Your task to perform on an android device: remove spam from my inbox in the gmail app Image 0: 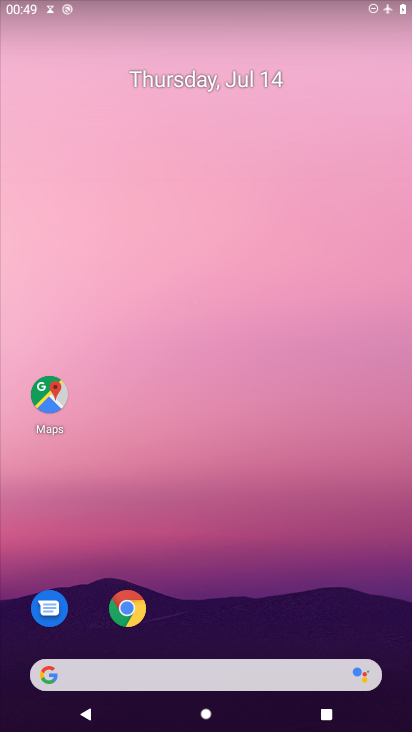
Step 0: press home button
Your task to perform on an android device: remove spam from my inbox in the gmail app Image 1: 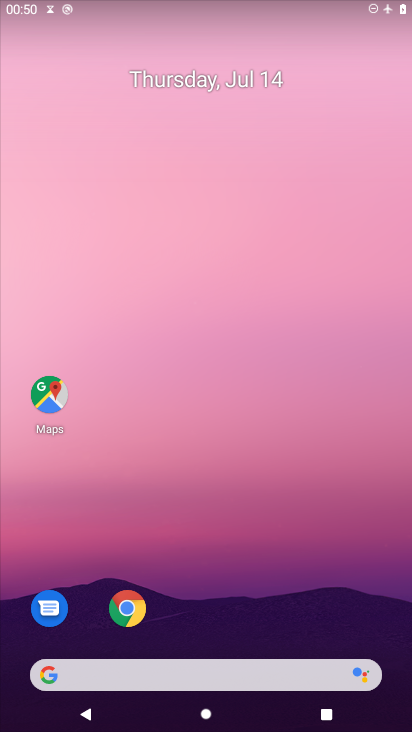
Step 1: press home button
Your task to perform on an android device: remove spam from my inbox in the gmail app Image 2: 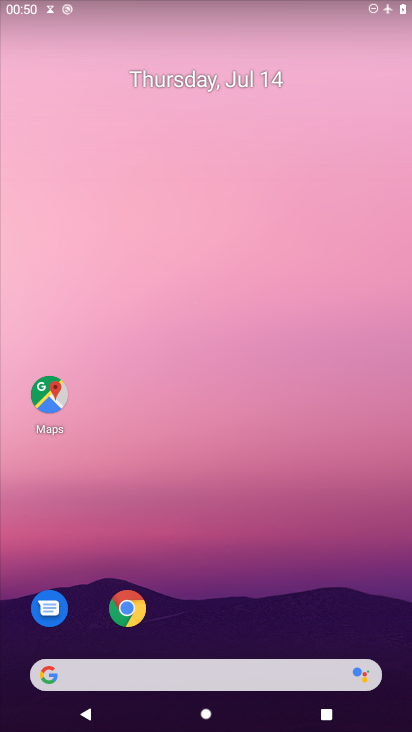
Step 2: drag from (271, 632) to (273, 14)
Your task to perform on an android device: remove spam from my inbox in the gmail app Image 3: 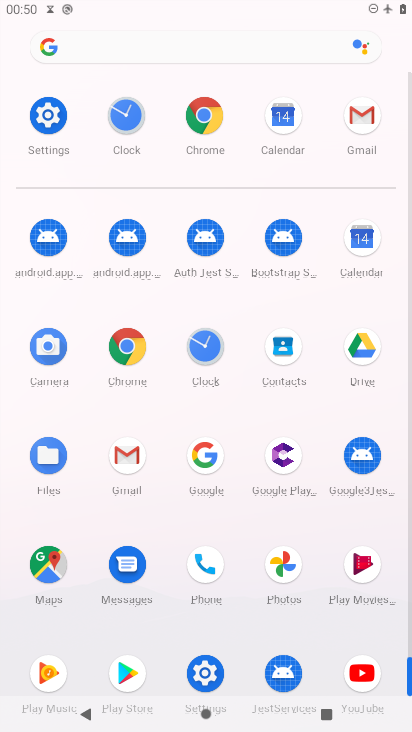
Step 3: click (370, 123)
Your task to perform on an android device: remove spam from my inbox in the gmail app Image 4: 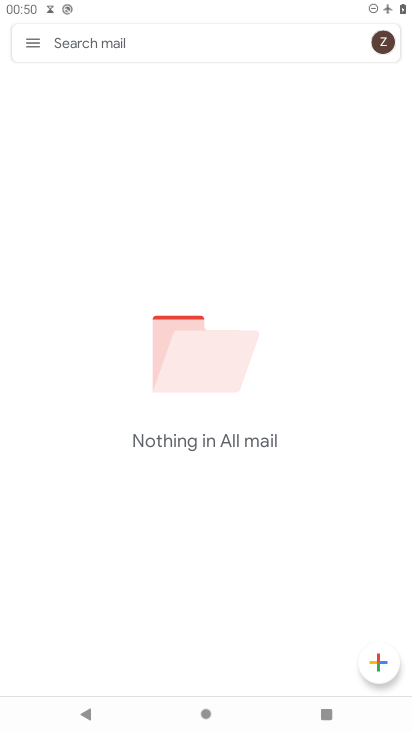
Step 4: click (39, 42)
Your task to perform on an android device: remove spam from my inbox in the gmail app Image 5: 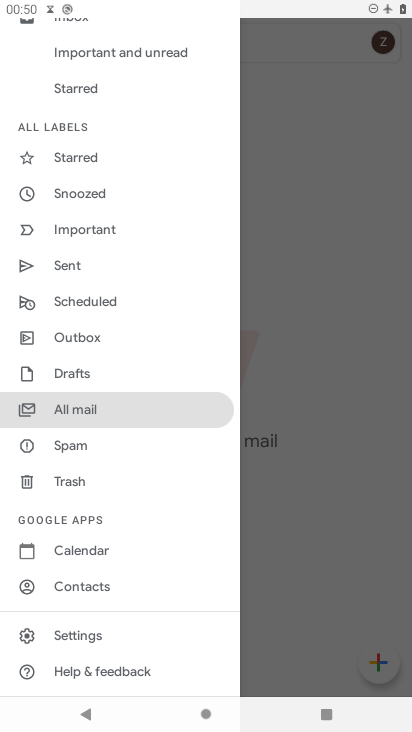
Step 5: click (81, 407)
Your task to perform on an android device: remove spam from my inbox in the gmail app Image 6: 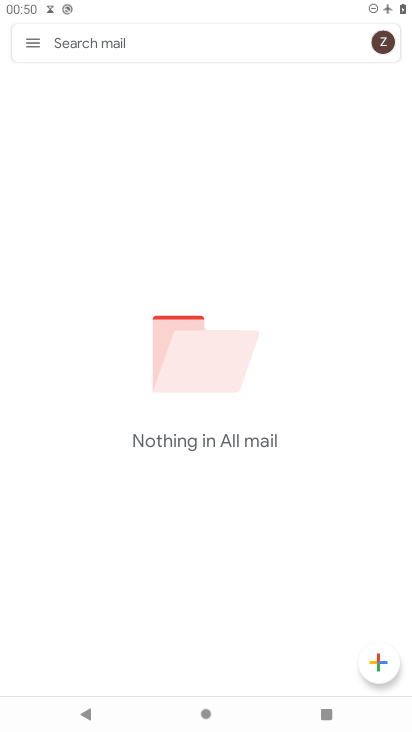
Step 6: task complete